Your task to perform on an android device: Open Amazon Image 0: 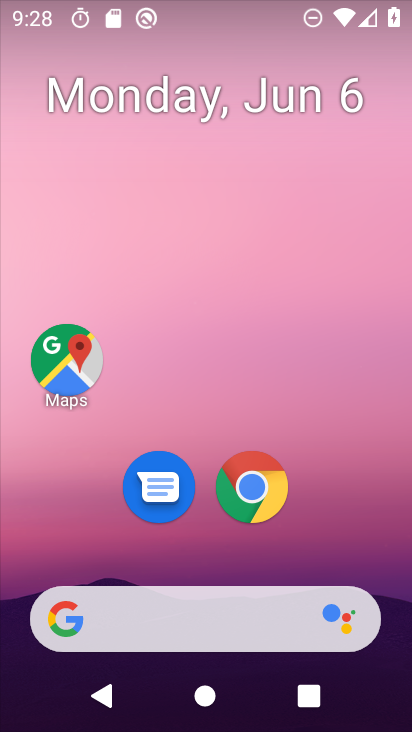
Step 0: drag from (397, 636) to (301, 55)
Your task to perform on an android device: Open Amazon Image 1: 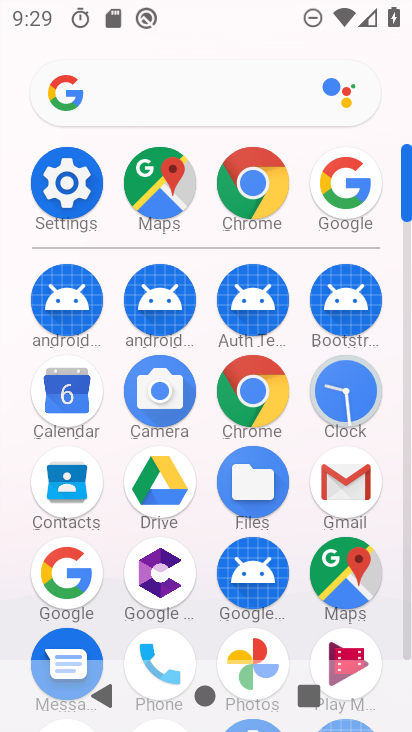
Step 1: click (57, 594)
Your task to perform on an android device: Open Amazon Image 2: 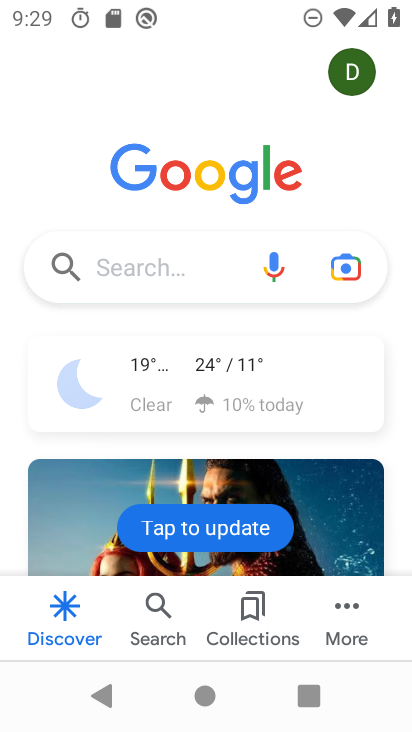
Step 2: click (148, 266)
Your task to perform on an android device: Open Amazon Image 3: 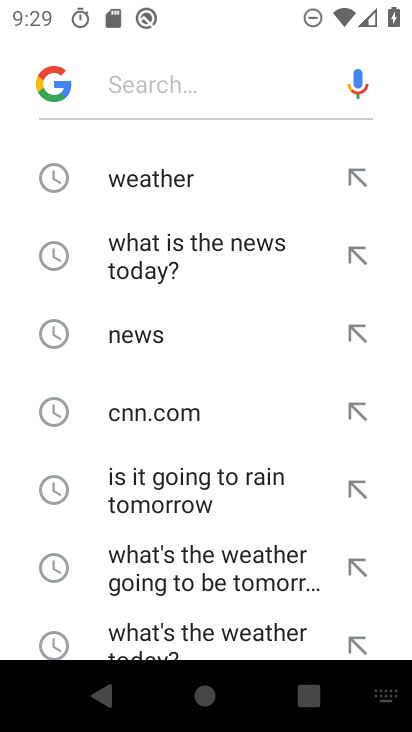
Step 3: drag from (119, 583) to (209, 208)
Your task to perform on an android device: Open Amazon Image 4: 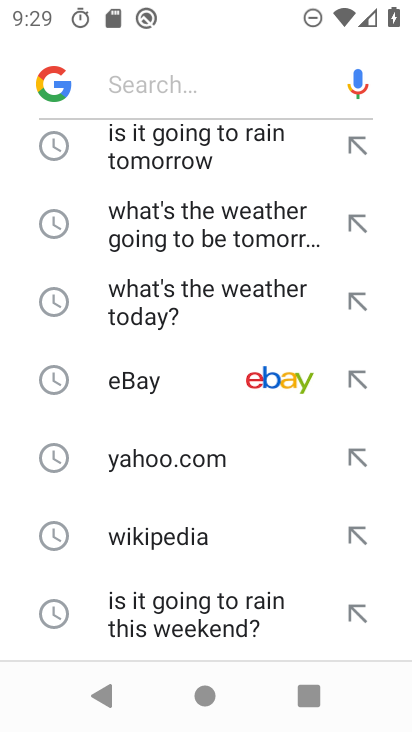
Step 4: drag from (143, 549) to (240, 130)
Your task to perform on an android device: Open Amazon Image 5: 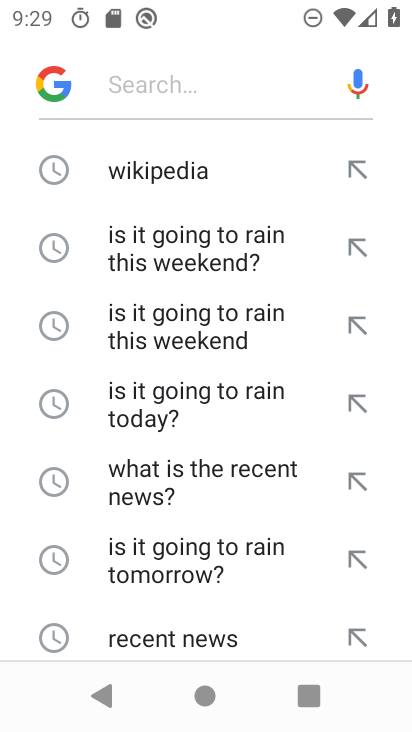
Step 5: drag from (213, 575) to (222, 134)
Your task to perform on an android device: Open Amazon Image 6: 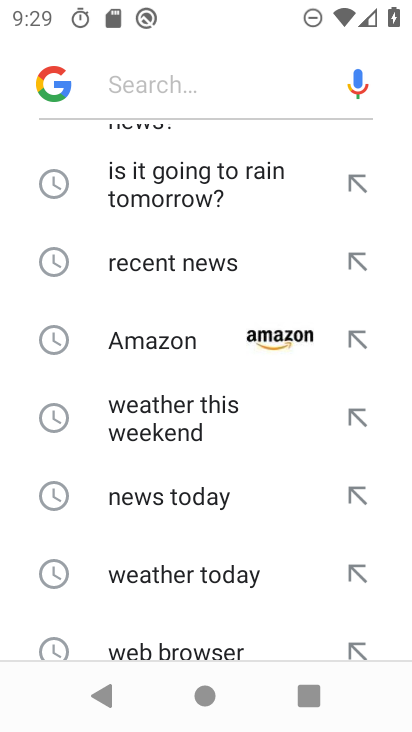
Step 6: click (152, 354)
Your task to perform on an android device: Open Amazon Image 7: 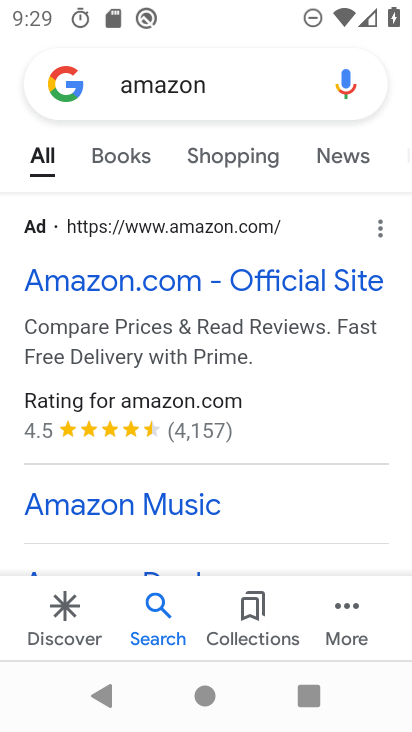
Step 7: task complete